Your task to perform on an android device: What is the news today? Image 0: 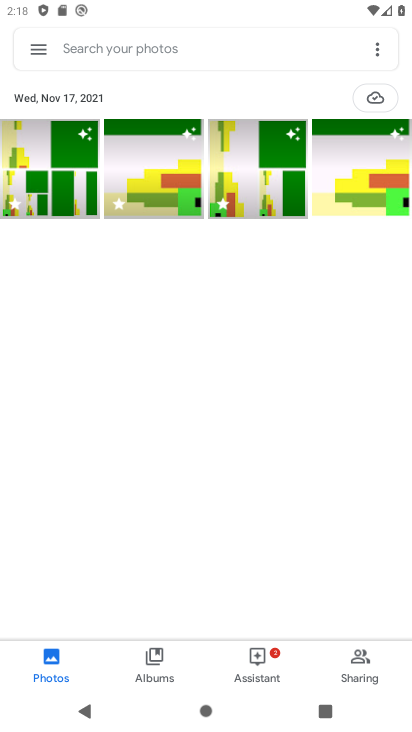
Step 0: press home button
Your task to perform on an android device: What is the news today? Image 1: 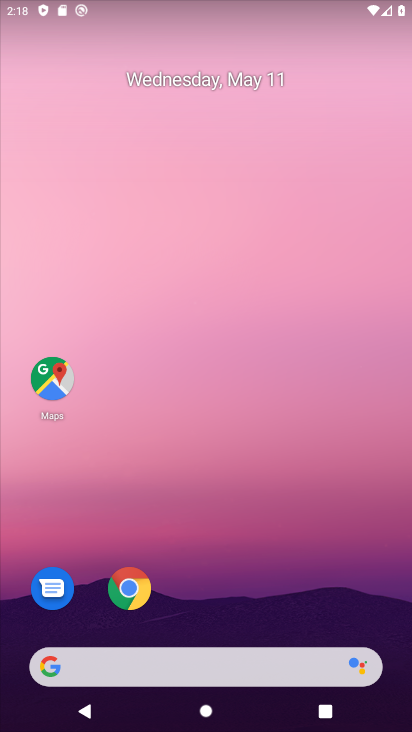
Step 1: click (133, 600)
Your task to perform on an android device: What is the news today? Image 2: 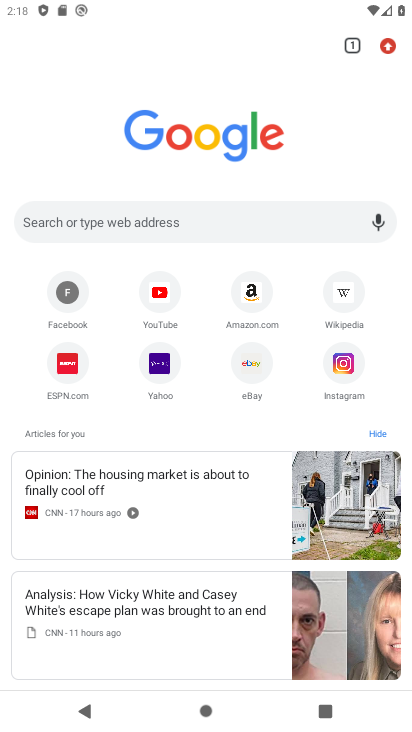
Step 2: click (140, 220)
Your task to perform on an android device: What is the news today? Image 3: 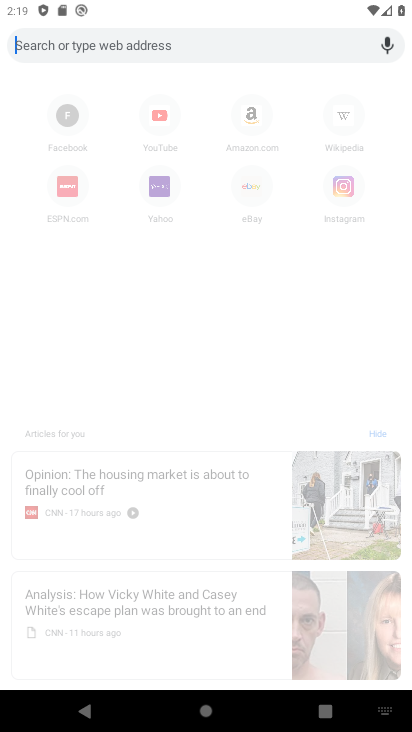
Step 3: type "What is the news today?"
Your task to perform on an android device: What is the news today? Image 4: 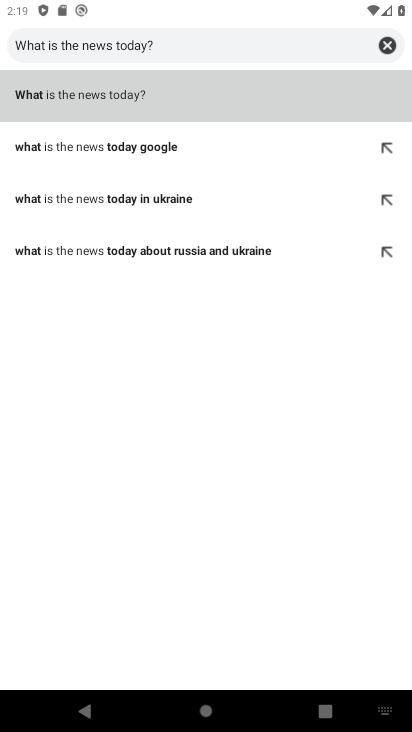
Step 4: click (39, 98)
Your task to perform on an android device: What is the news today? Image 5: 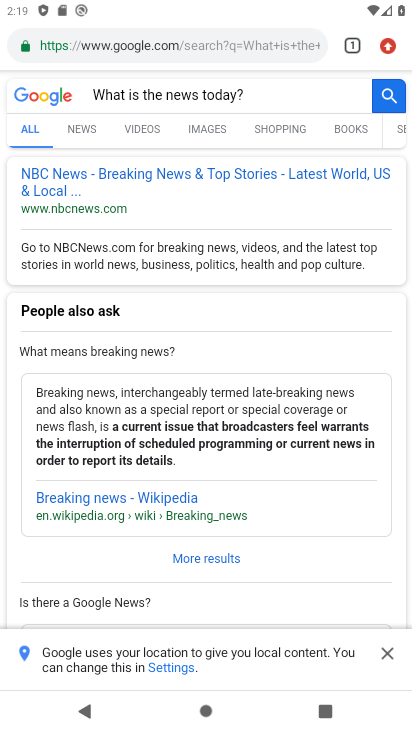
Step 5: click (84, 124)
Your task to perform on an android device: What is the news today? Image 6: 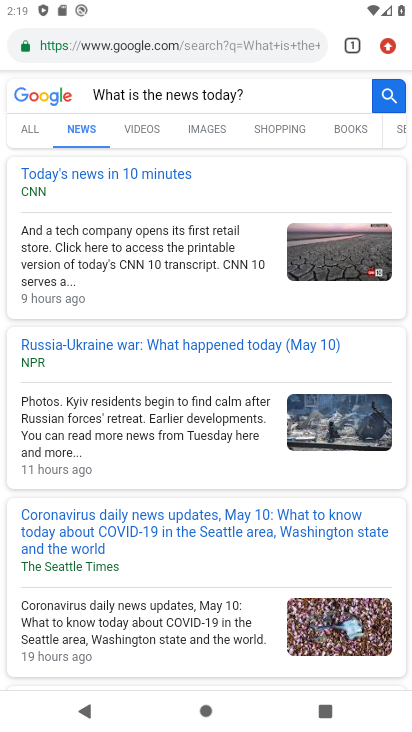
Step 6: task complete